Your task to perform on an android device: Show me recent news Image 0: 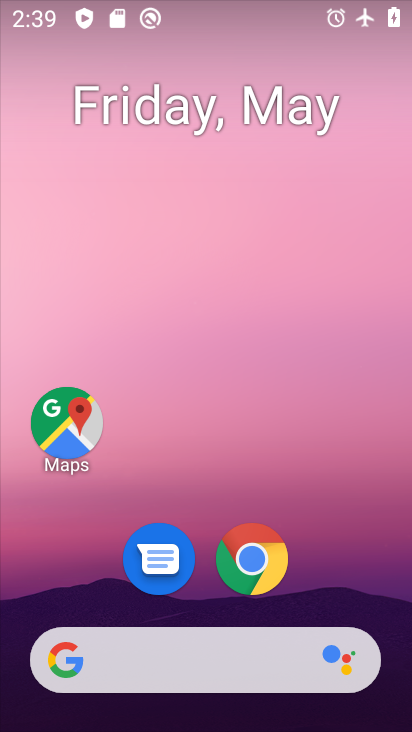
Step 0: drag from (363, 585) to (353, 161)
Your task to perform on an android device: Show me recent news Image 1: 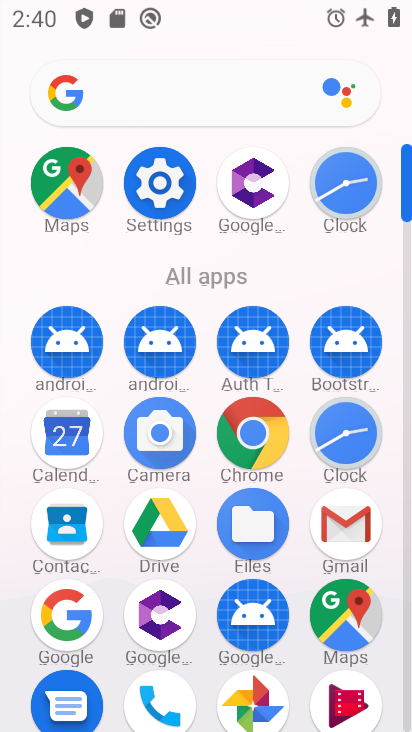
Step 1: click (181, 90)
Your task to perform on an android device: Show me recent news Image 2: 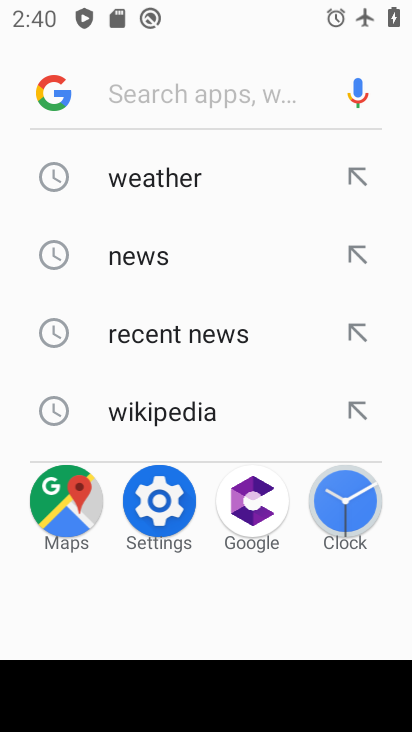
Step 2: click (254, 339)
Your task to perform on an android device: Show me recent news Image 3: 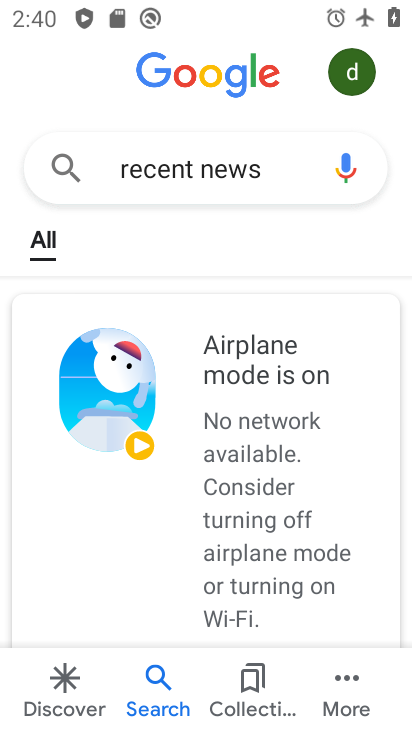
Step 3: task complete